Your task to perform on an android device: Show me popular games on the Play Store Image 0: 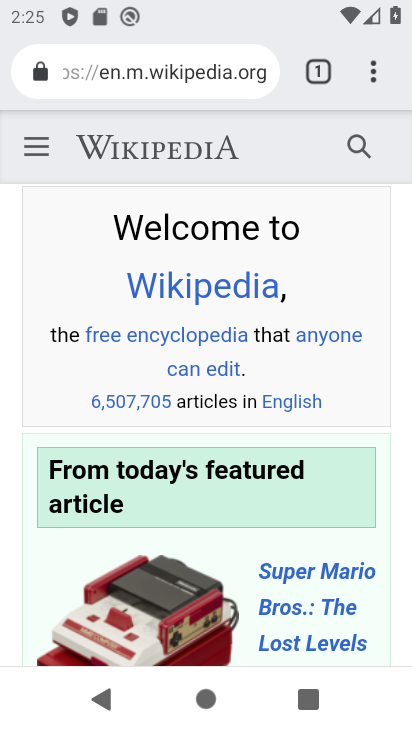
Step 0: press home button
Your task to perform on an android device: Show me popular games on the Play Store Image 1: 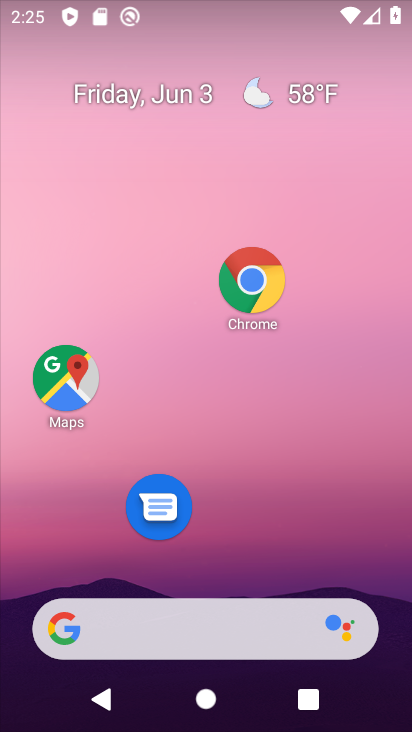
Step 1: drag from (227, 562) to (209, 39)
Your task to perform on an android device: Show me popular games on the Play Store Image 2: 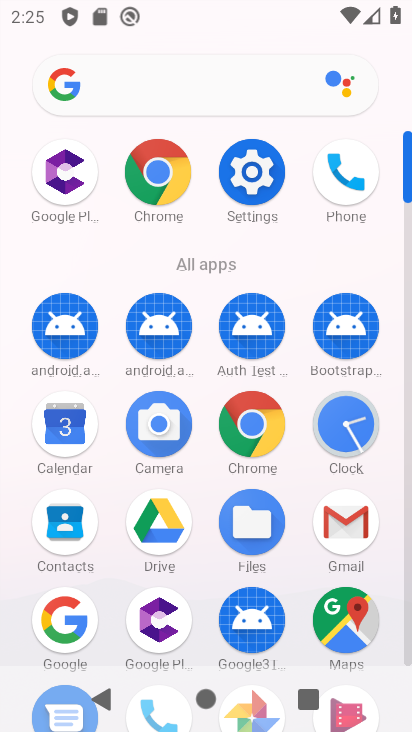
Step 2: drag from (199, 609) to (191, 221)
Your task to perform on an android device: Show me popular games on the Play Store Image 3: 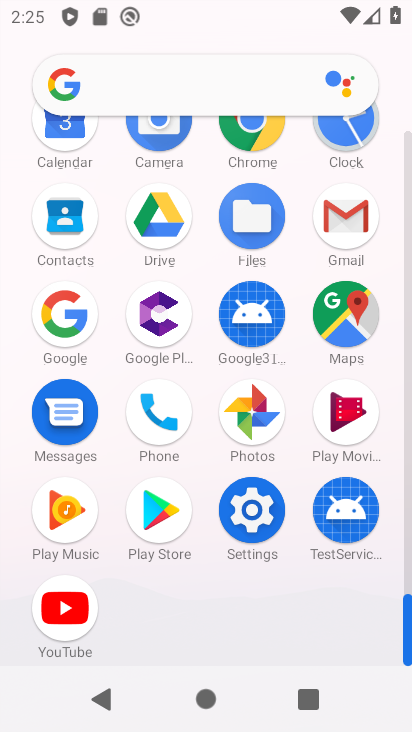
Step 3: click (163, 514)
Your task to perform on an android device: Show me popular games on the Play Store Image 4: 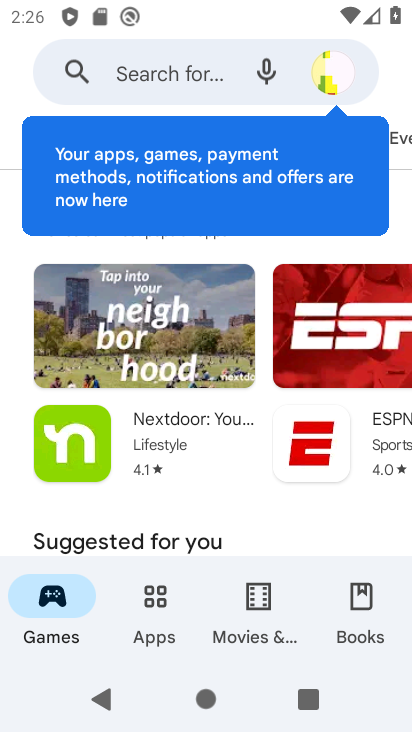
Step 4: task complete